Your task to perform on an android device: Is it going to rain this weekend? Image 0: 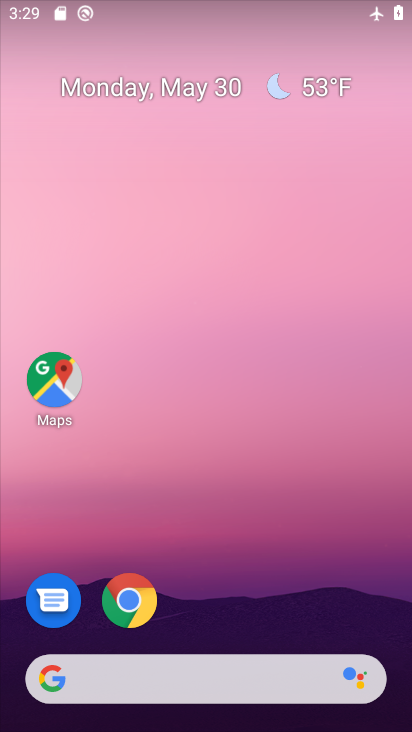
Step 0: drag from (283, 529) to (401, 115)
Your task to perform on an android device: Is it going to rain this weekend? Image 1: 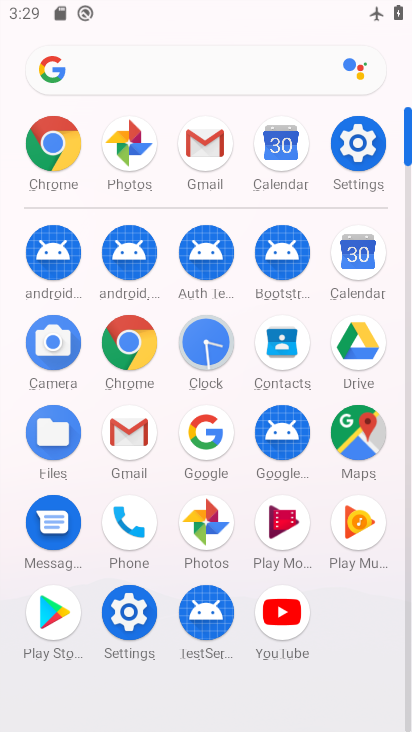
Step 1: press home button
Your task to perform on an android device: Is it going to rain this weekend? Image 2: 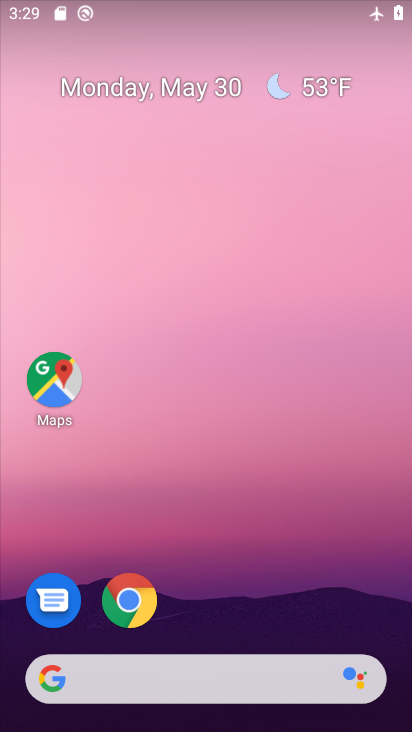
Step 2: click (333, 92)
Your task to perform on an android device: Is it going to rain this weekend? Image 3: 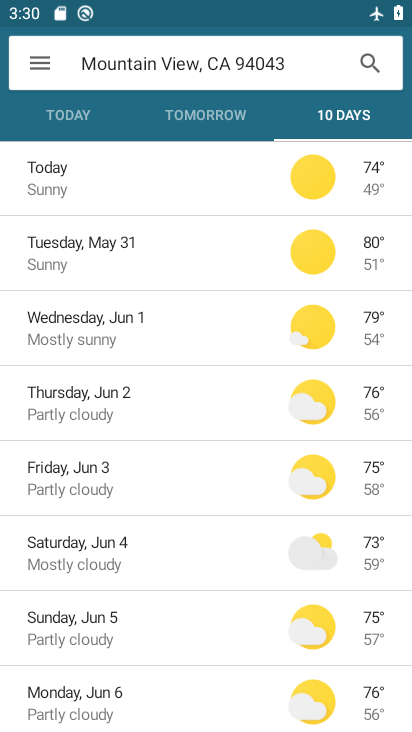
Step 3: task complete